Your task to perform on an android device: turn smart compose on in the gmail app Image 0: 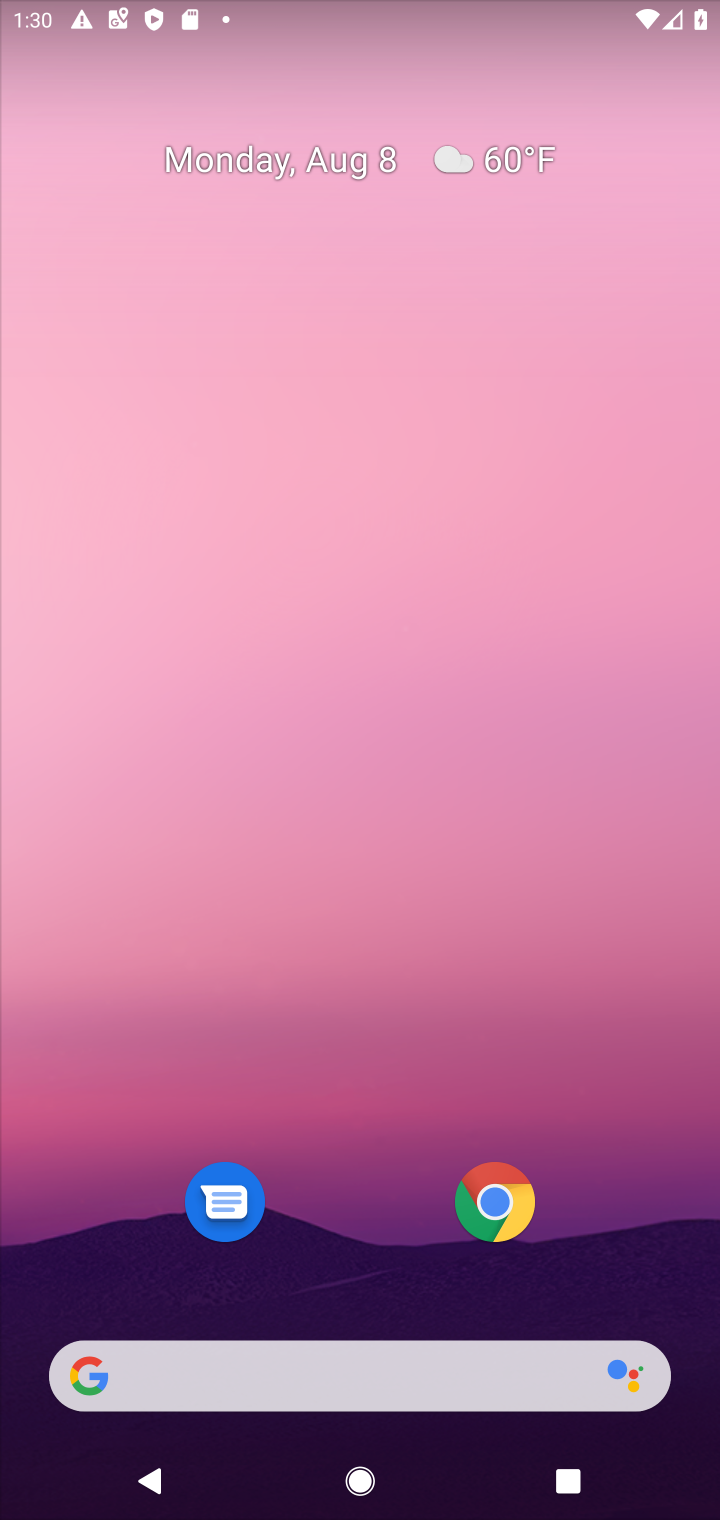
Step 0: press home button
Your task to perform on an android device: turn smart compose on in the gmail app Image 1: 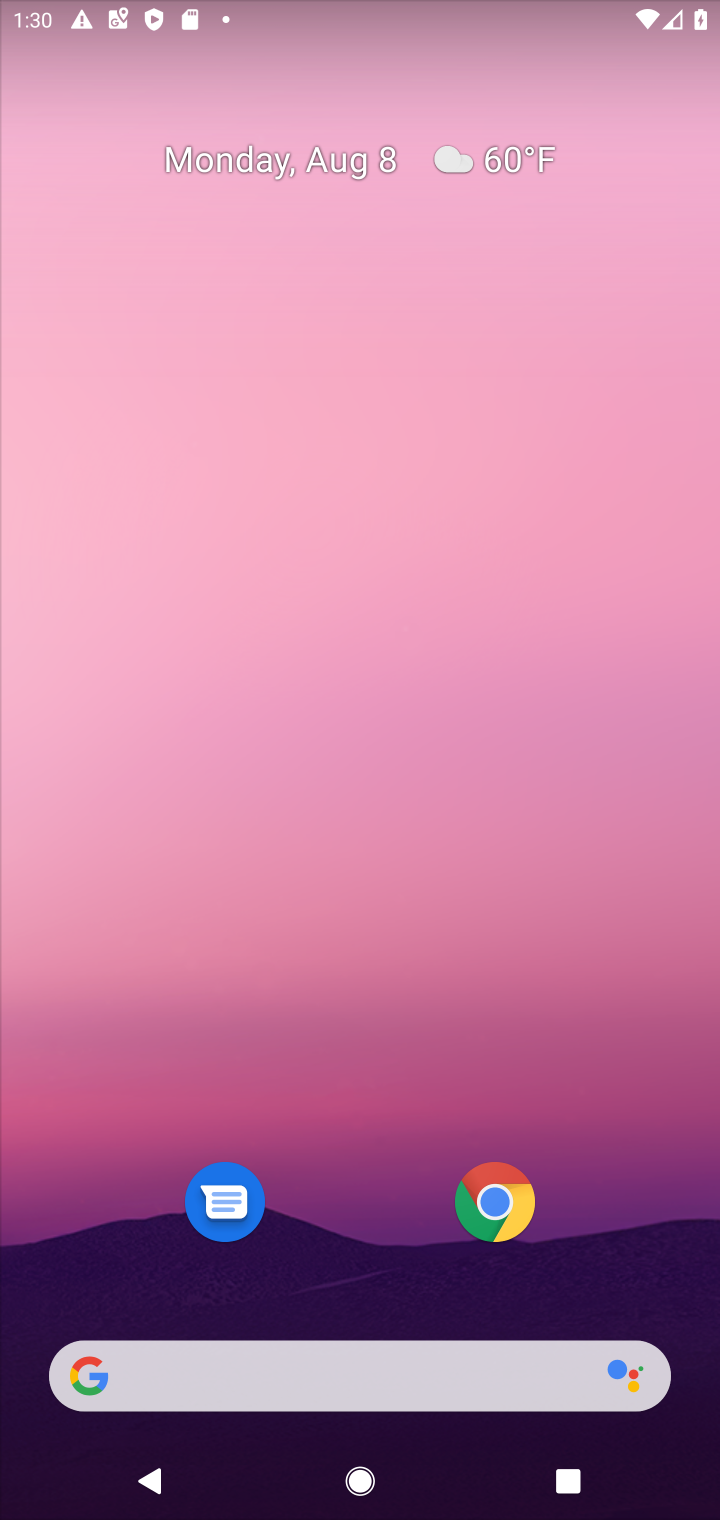
Step 1: drag from (376, 1264) to (447, 376)
Your task to perform on an android device: turn smart compose on in the gmail app Image 2: 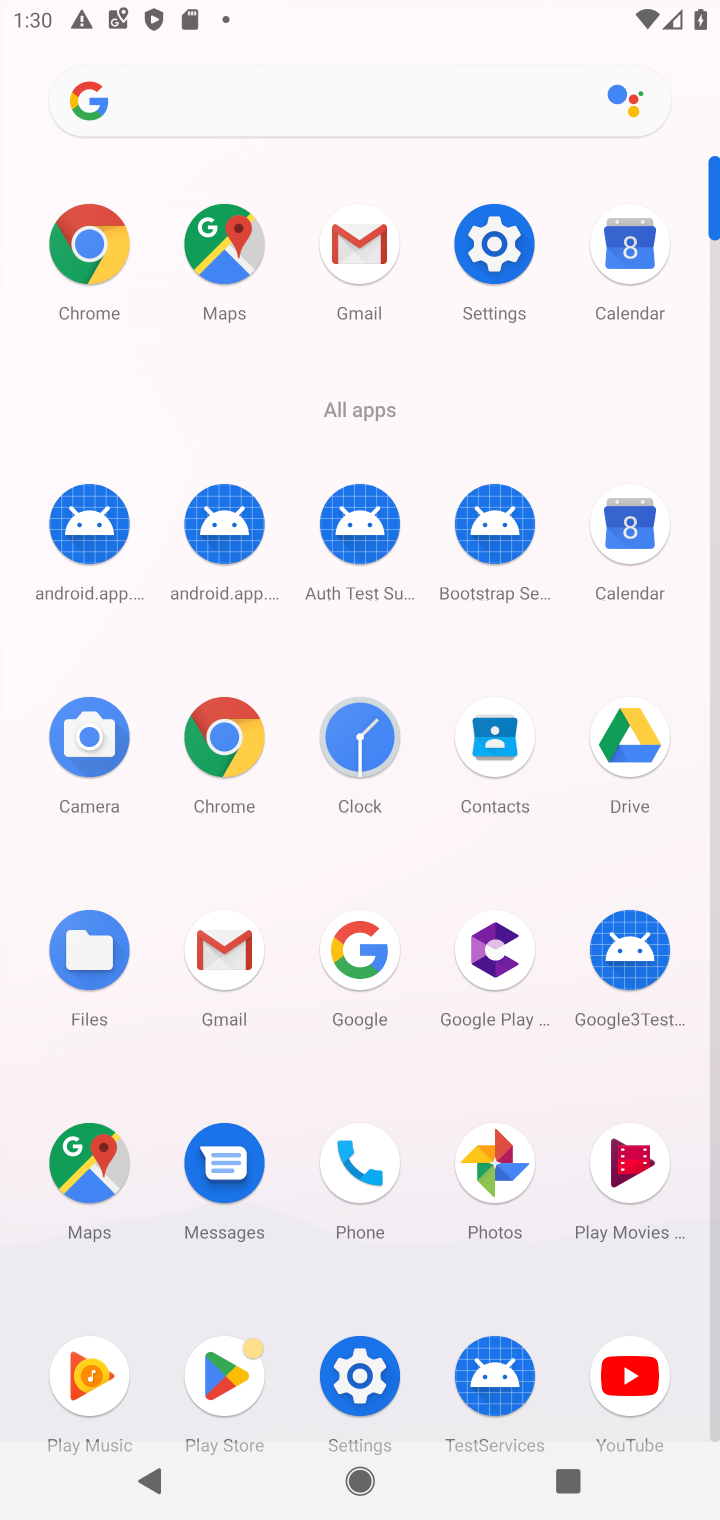
Step 2: click (234, 939)
Your task to perform on an android device: turn smart compose on in the gmail app Image 3: 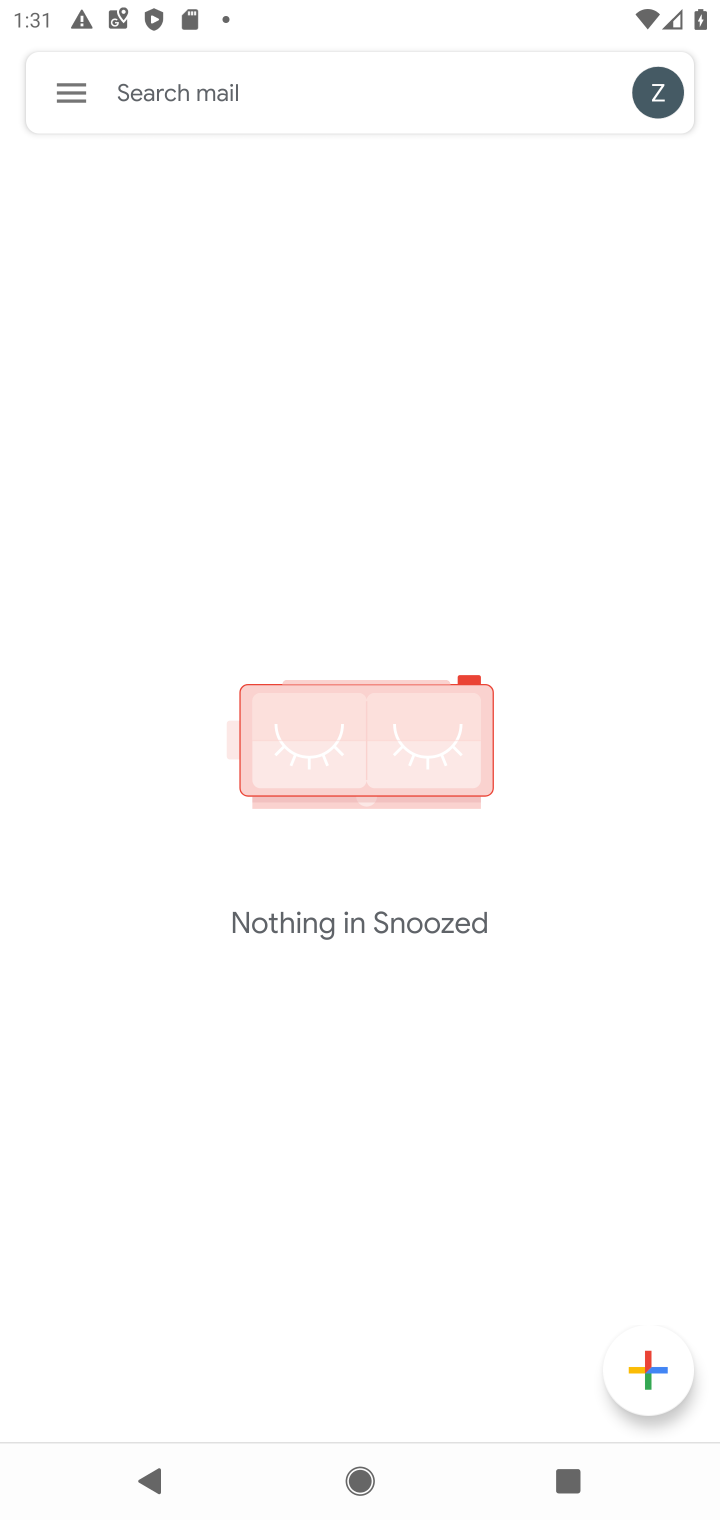
Step 3: click (58, 88)
Your task to perform on an android device: turn smart compose on in the gmail app Image 4: 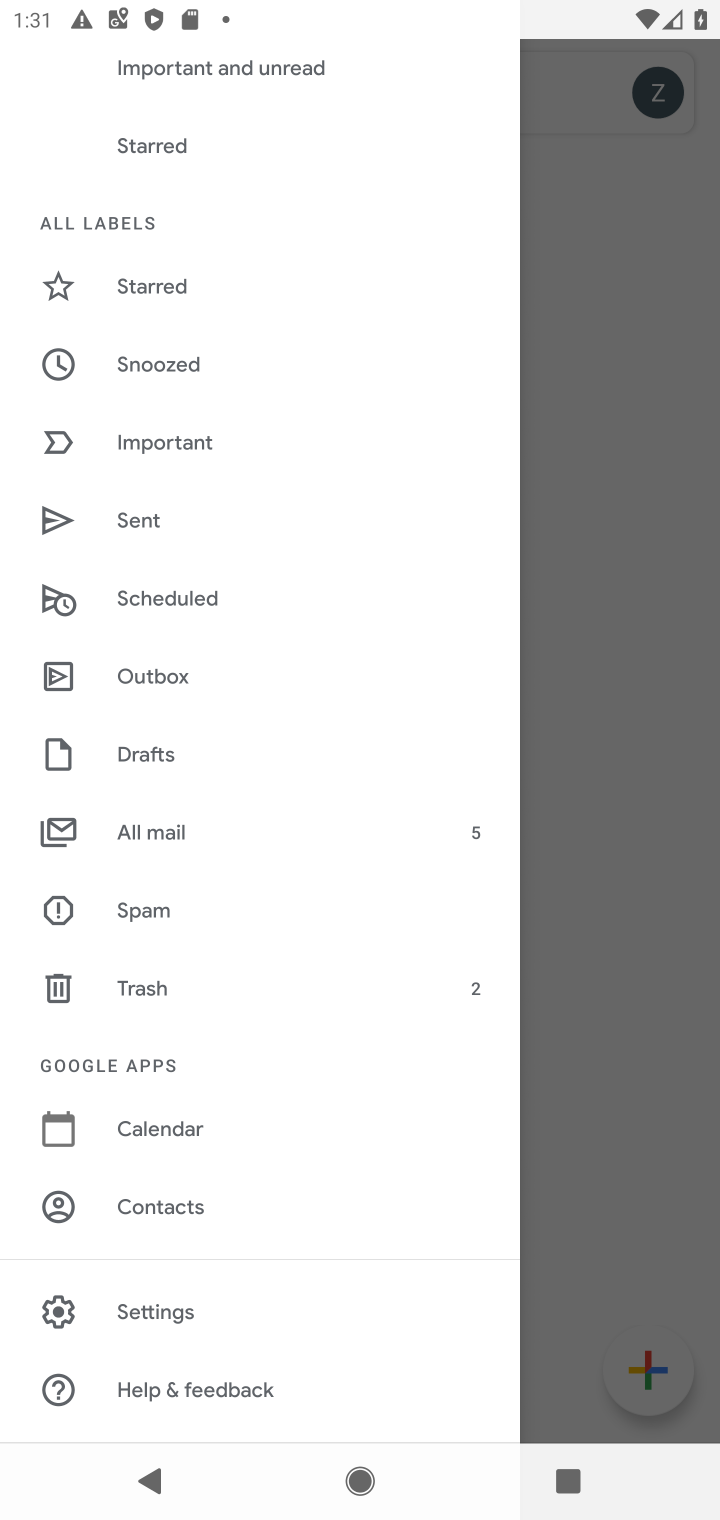
Step 4: click (182, 1315)
Your task to perform on an android device: turn smart compose on in the gmail app Image 5: 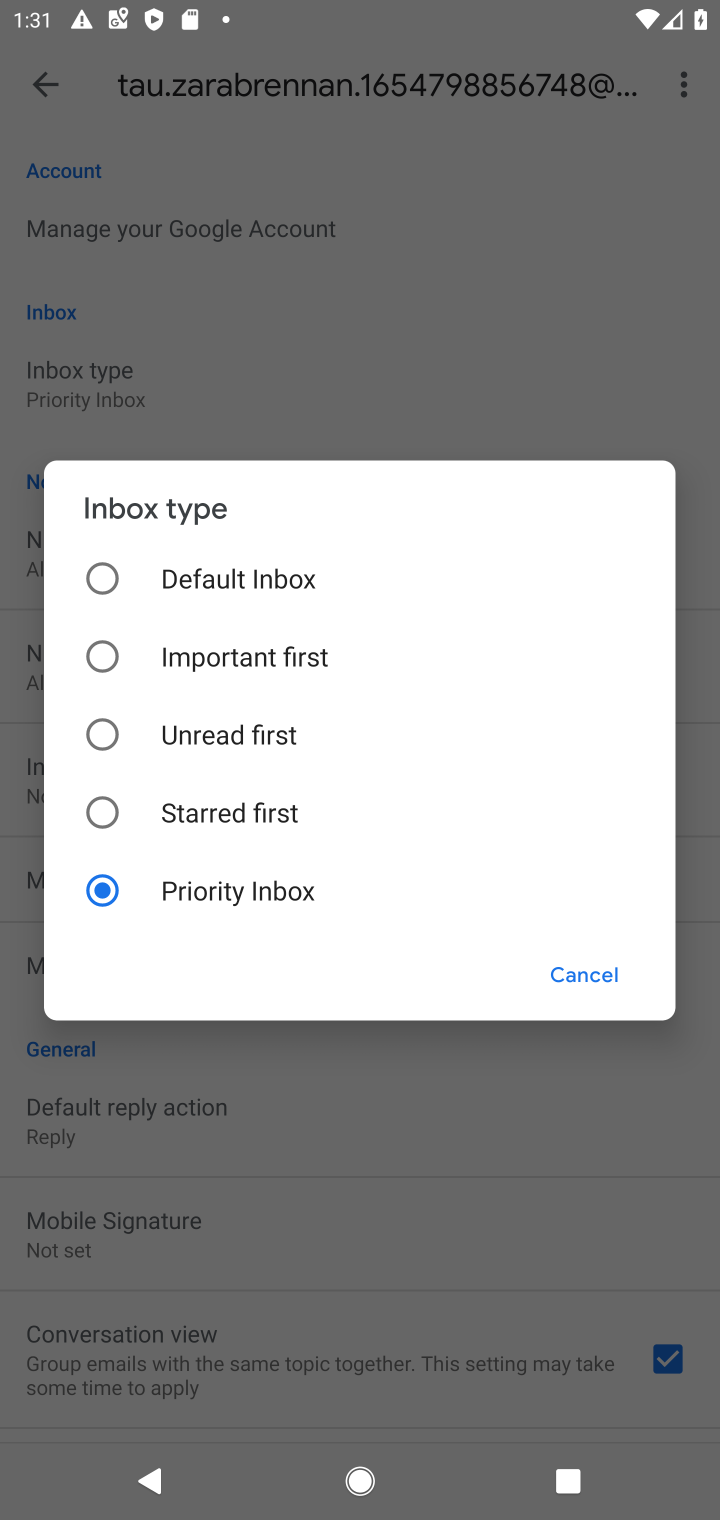
Step 5: click (569, 977)
Your task to perform on an android device: turn smart compose on in the gmail app Image 6: 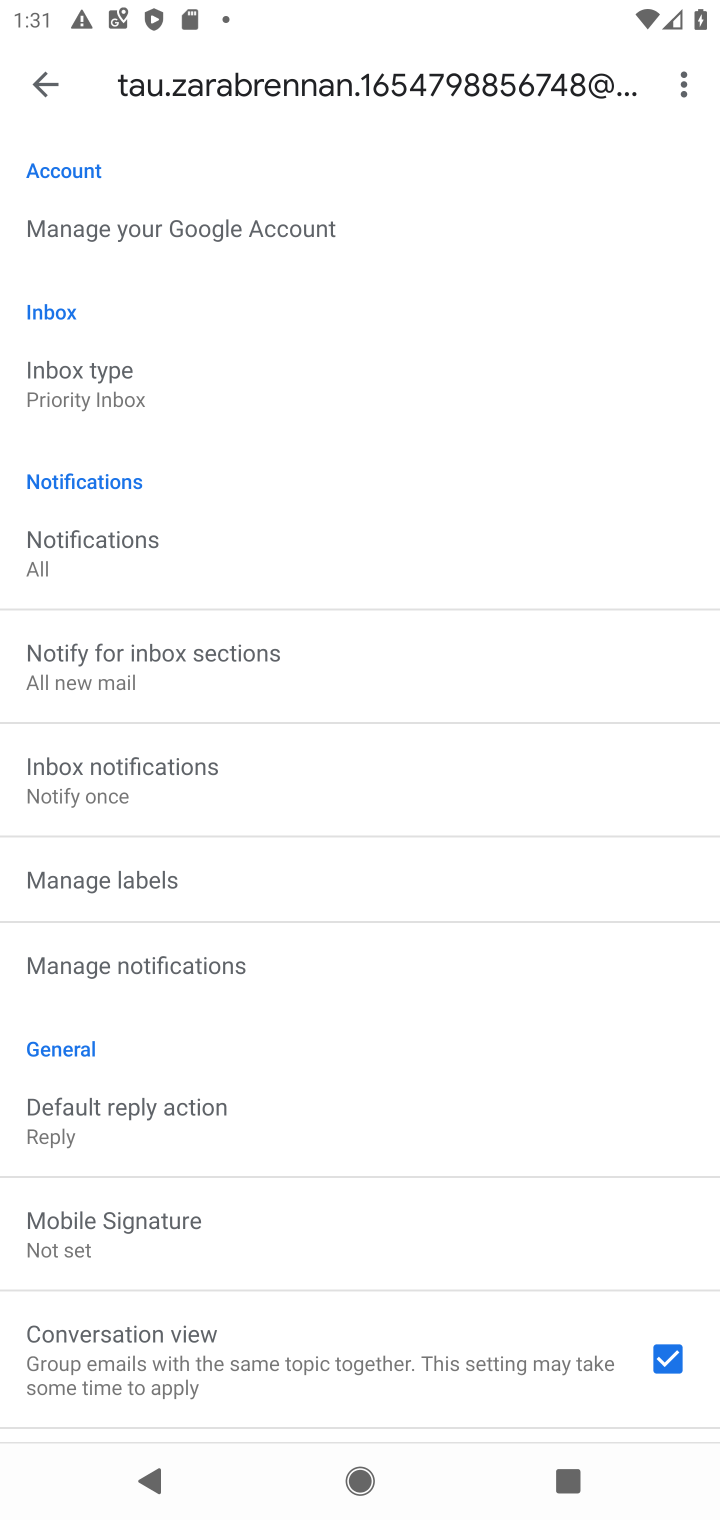
Step 6: task complete